Your task to perform on an android device: Open accessibility settings Image 0: 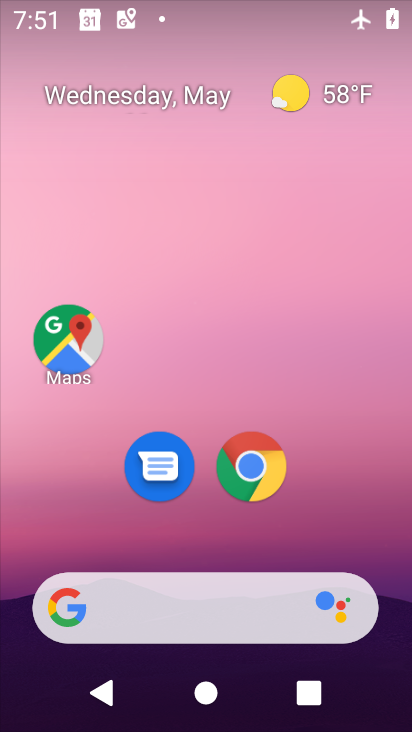
Step 0: drag from (204, 531) to (191, 210)
Your task to perform on an android device: Open accessibility settings Image 1: 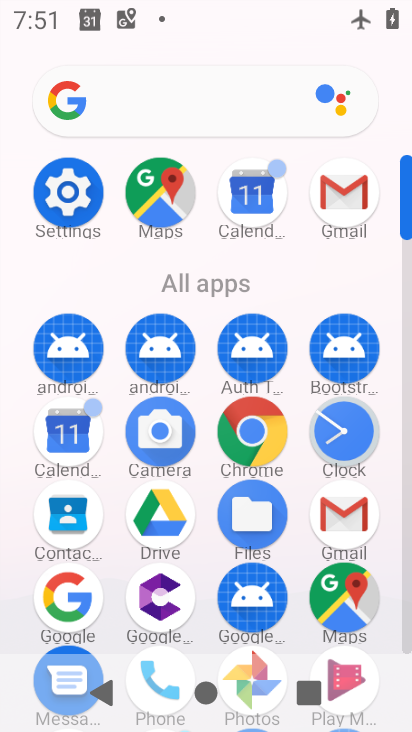
Step 1: click (54, 187)
Your task to perform on an android device: Open accessibility settings Image 2: 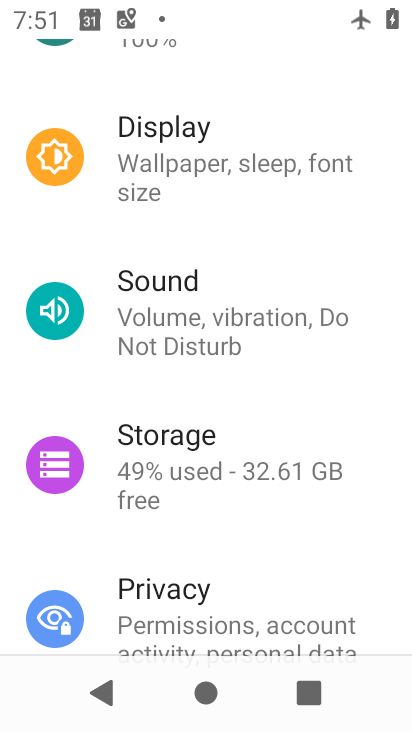
Step 2: drag from (225, 599) to (238, 111)
Your task to perform on an android device: Open accessibility settings Image 3: 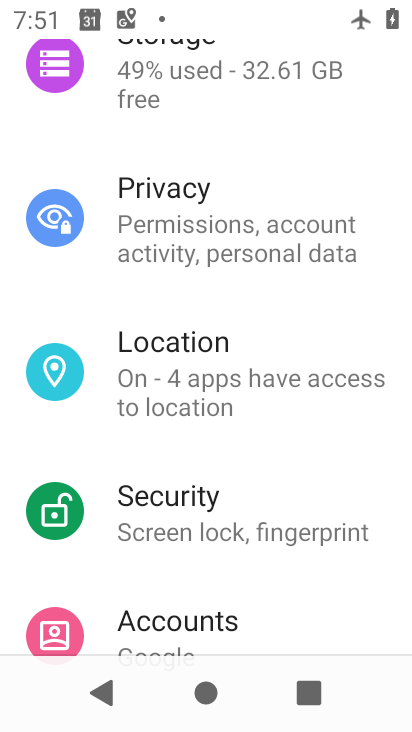
Step 3: drag from (190, 591) to (240, 41)
Your task to perform on an android device: Open accessibility settings Image 4: 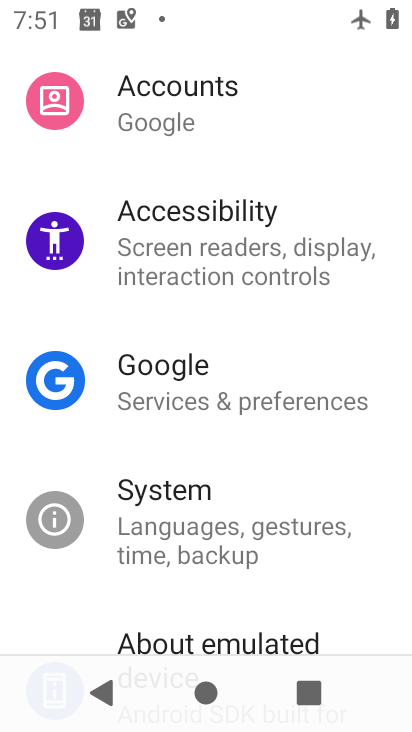
Step 4: drag from (199, 509) to (213, 99)
Your task to perform on an android device: Open accessibility settings Image 5: 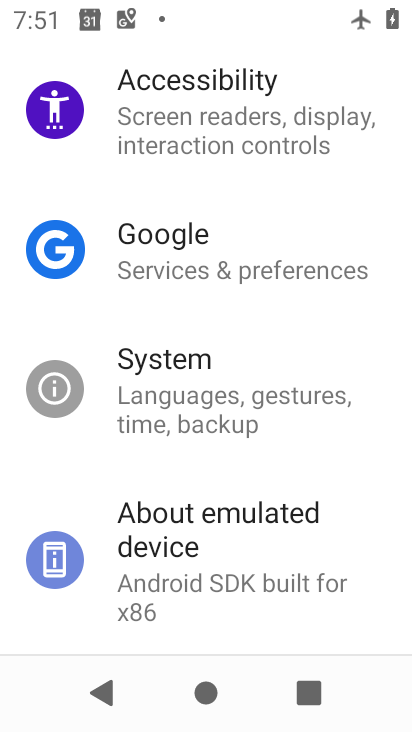
Step 5: click (179, 124)
Your task to perform on an android device: Open accessibility settings Image 6: 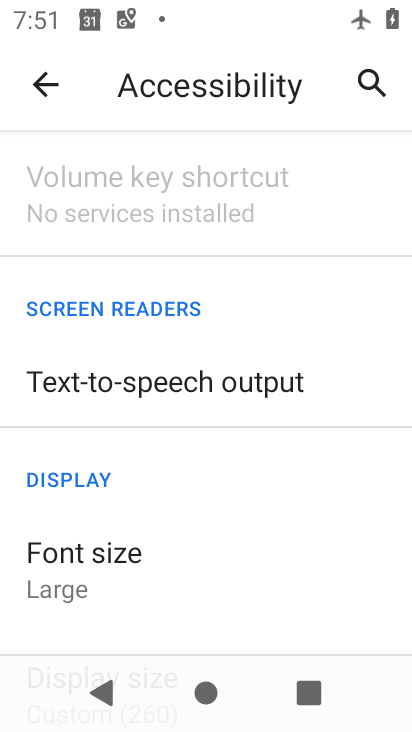
Step 6: task complete